Your task to perform on an android device: When is my next meeting? Image 0: 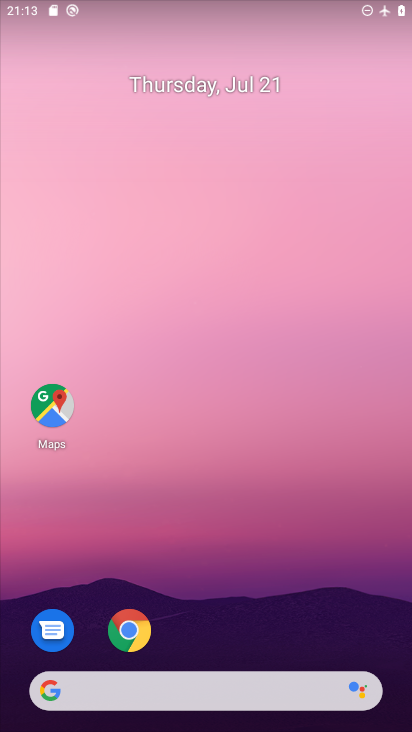
Step 0: drag from (316, 619) to (340, 150)
Your task to perform on an android device: When is my next meeting? Image 1: 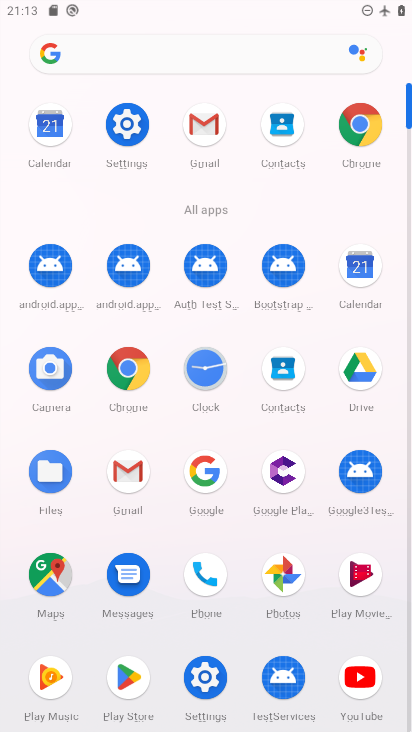
Step 1: click (361, 254)
Your task to perform on an android device: When is my next meeting? Image 2: 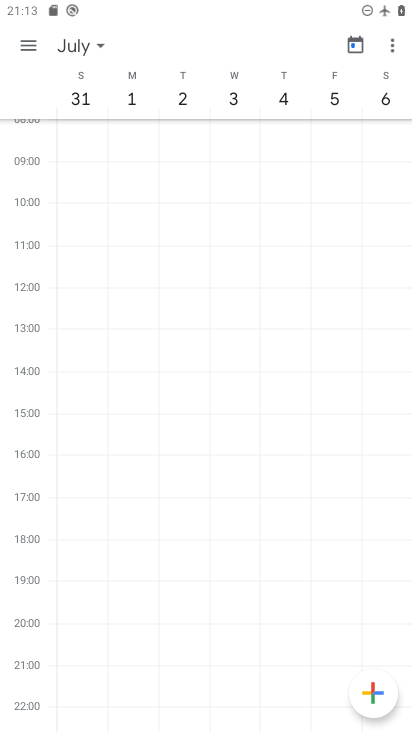
Step 2: click (83, 47)
Your task to perform on an android device: When is my next meeting? Image 3: 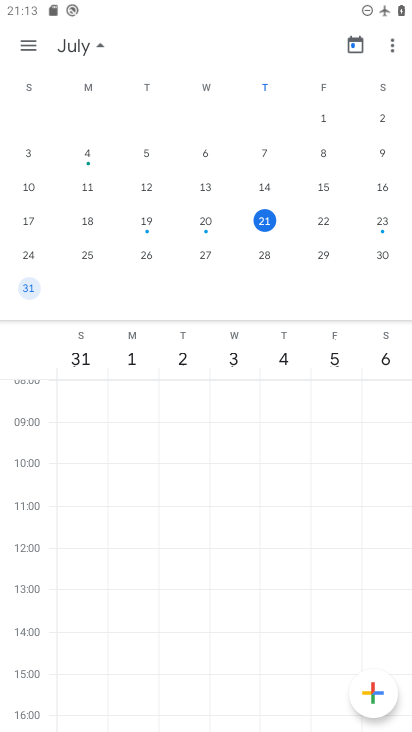
Step 3: click (265, 226)
Your task to perform on an android device: When is my next meeting? Image 4: 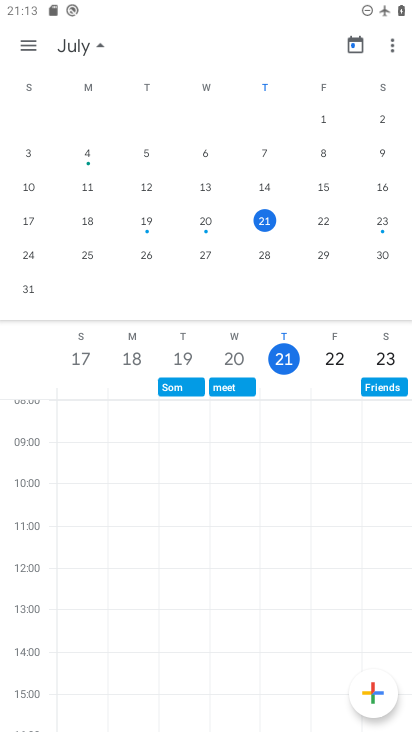
Step 4: task complete